Your task to perform on an android device: open app "Google Play Games" (install if not already installed) Image 0: 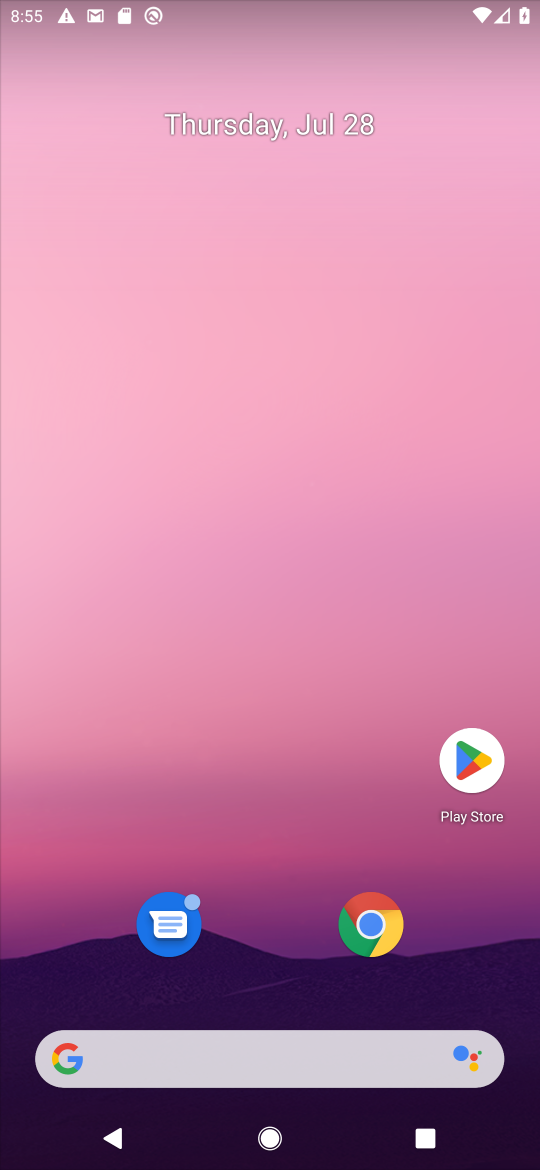
Step 0: click (478, 759)
Your task to perform on an android device: open app "Google Play Games" (install if not already installed) Image 1: 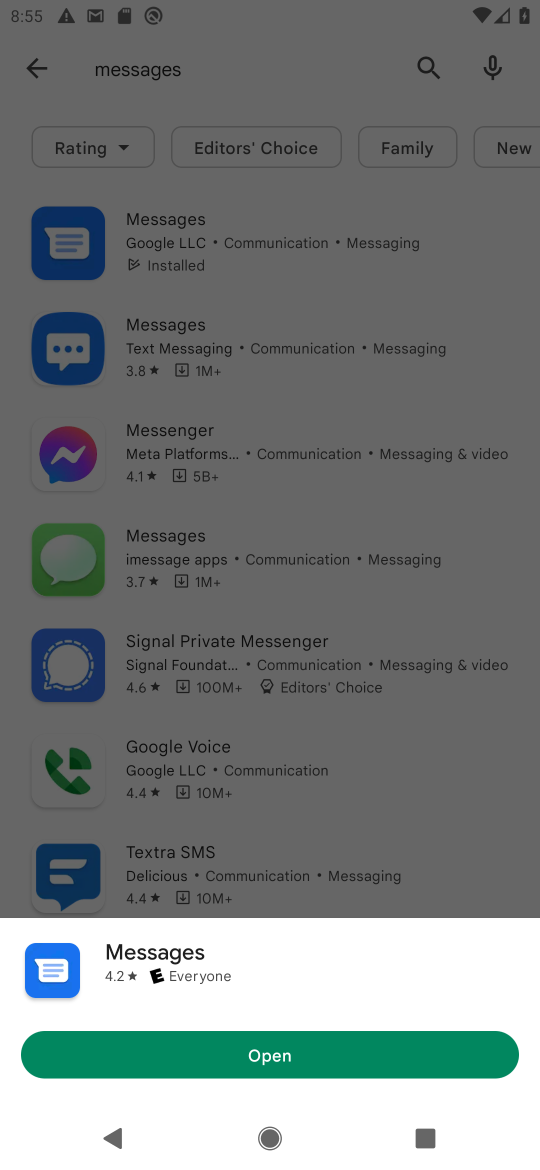
Step 1: click (422, 62)
Your task to perform on an android device: open app "Google Play Games" (install if not already installed) Image 2: 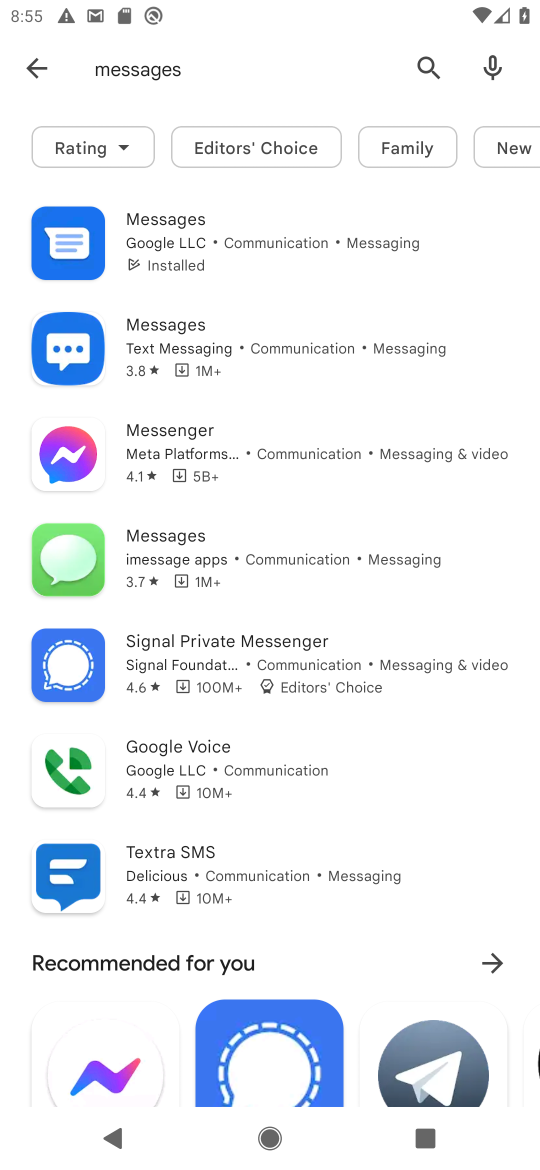
Step 2: click (417, 60)
Your task to perform on an android device: open app "Google Play Games" (install if not already installed) Image 3: 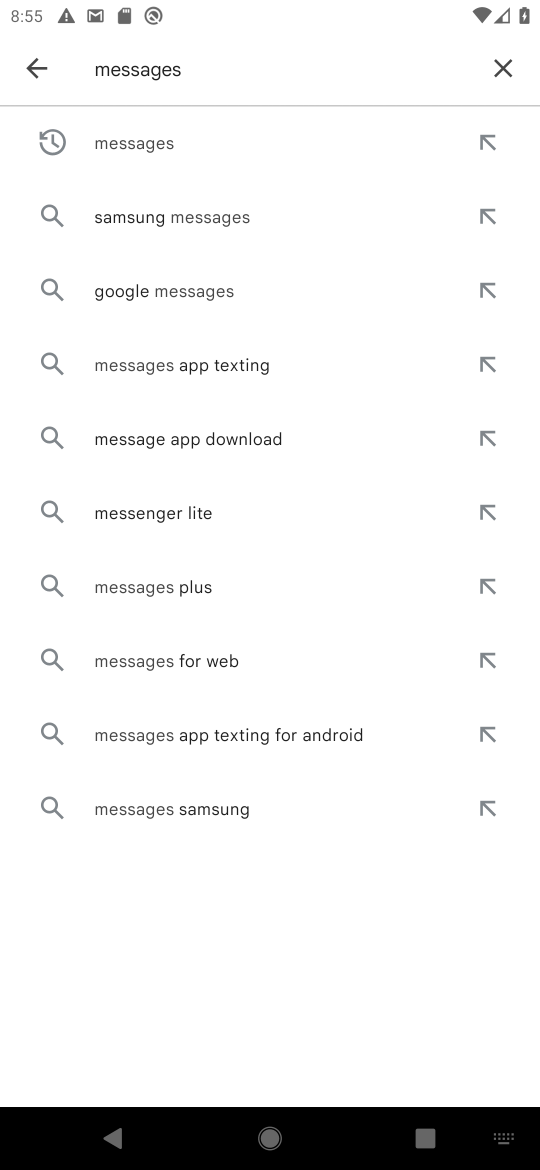
Step 3: type "Google Play Games"
Your task to perform on an android device: open app "Google Play Games" (install if not already installed) Image 4: 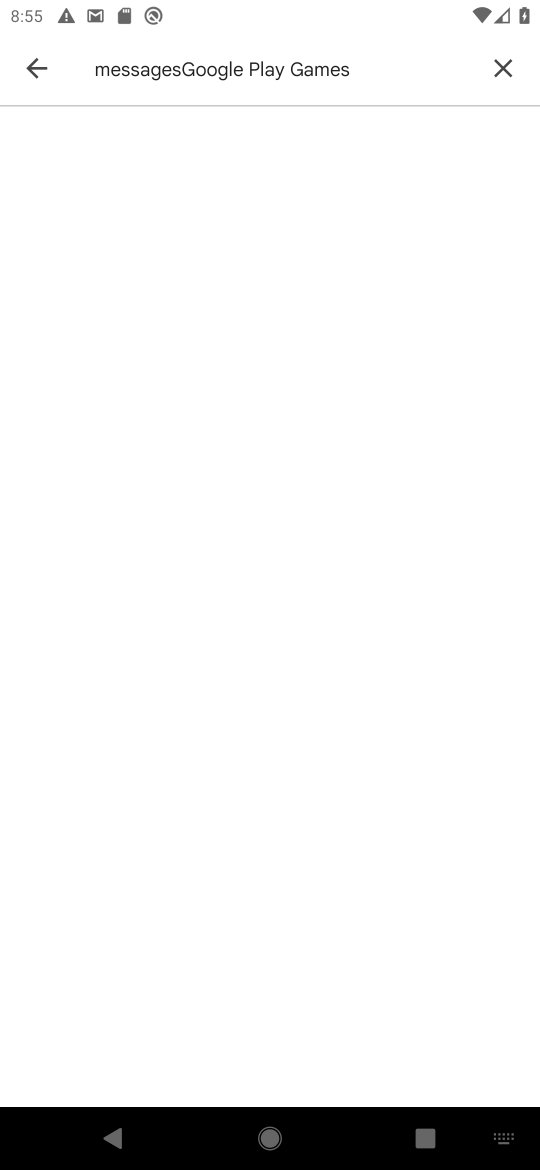
Step 4: click (502, 68)
Your task to perform on an android device: open app "Google Play Games" (install if not already installed) Image 5: 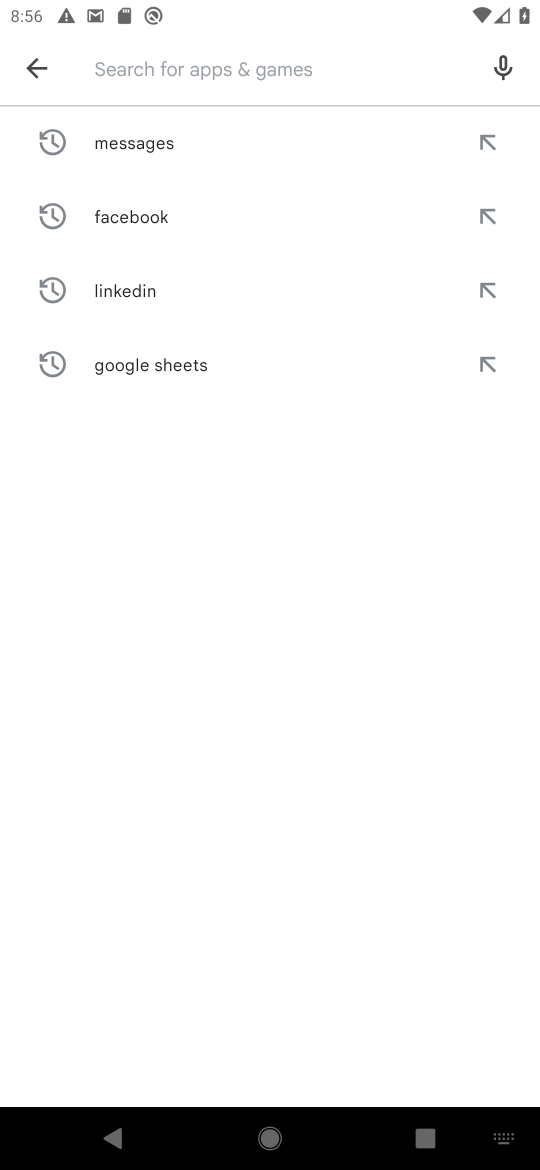
Step 5: type "Google Play Games"
Your task to perform on an android device: open app "Google Play Games" (install if not already installed) Image 6: 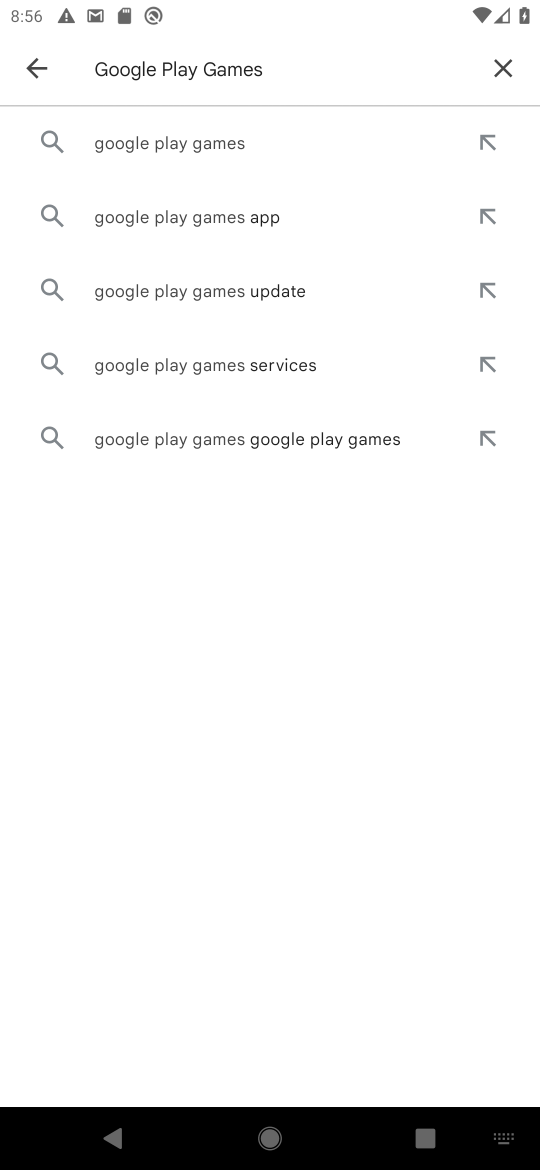
Step 6: click (179, 136)
Your task to perform on an android device: open app "Google Play Games" (install if not already installed) Image 7: 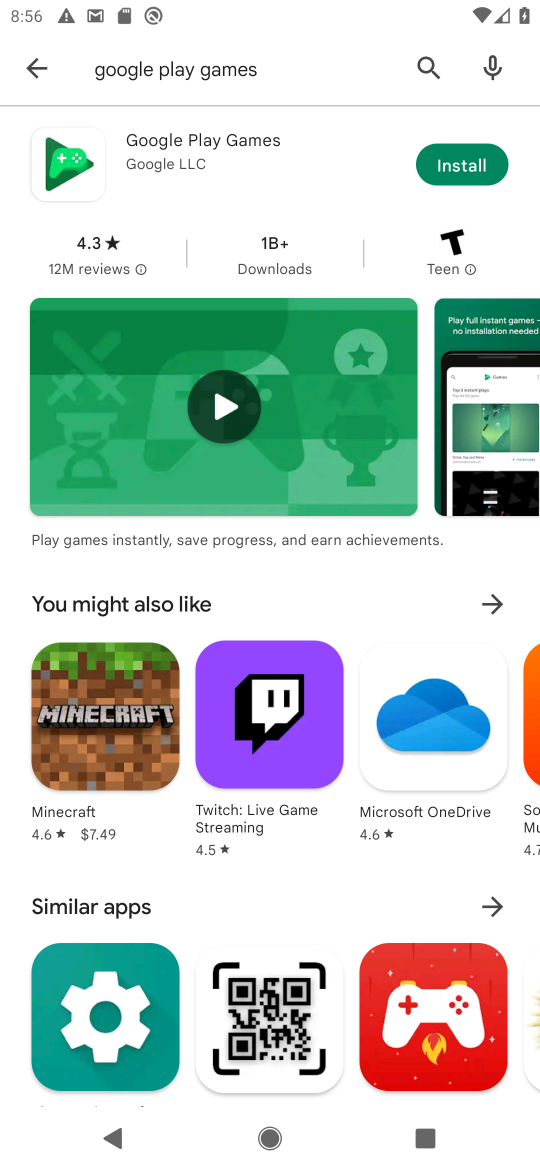
Step 7: click (473, 163)
Your task to perform on an android device: open app "Google Play Games" (install if not already installed) Image 8: 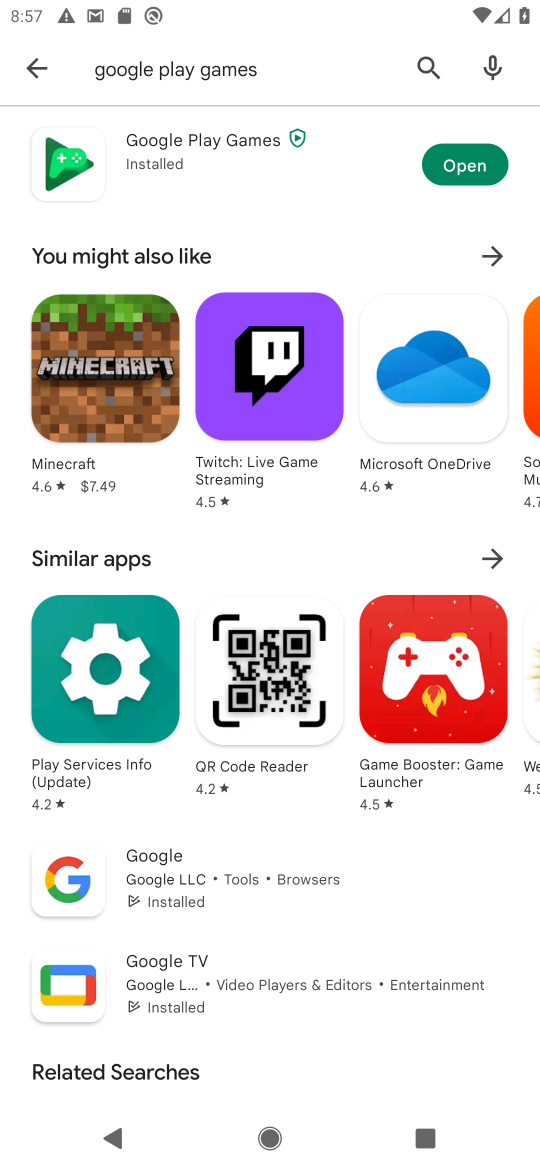
Step 8: click (468, 168)
Your task to perform on an android device: open app "Google Play Games" (install if not already installed) Image 9: 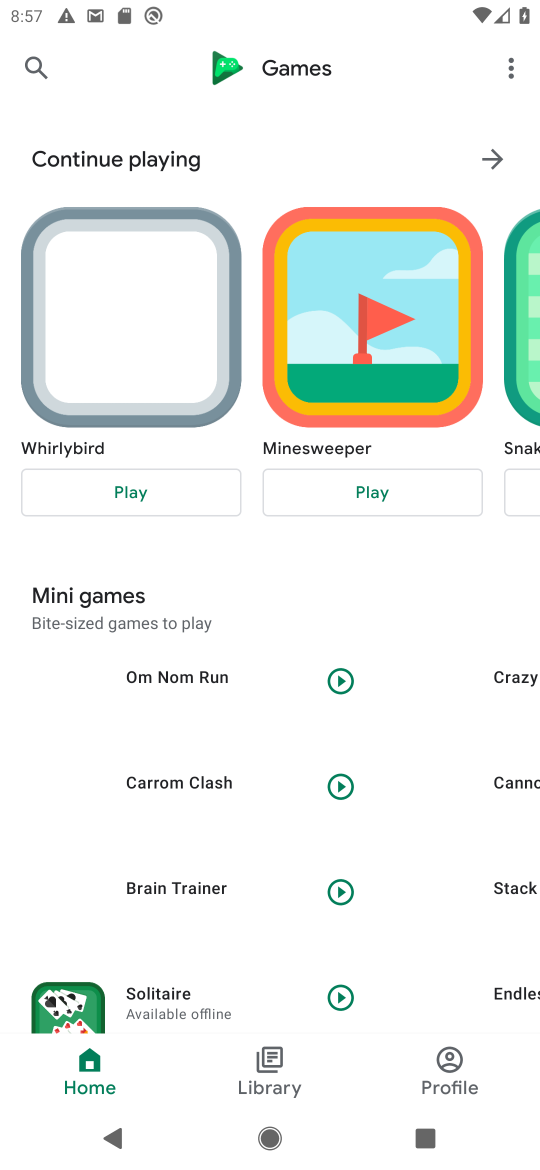
Step 9: task complete